Your task to perform on an android device: check data usage Image 0: 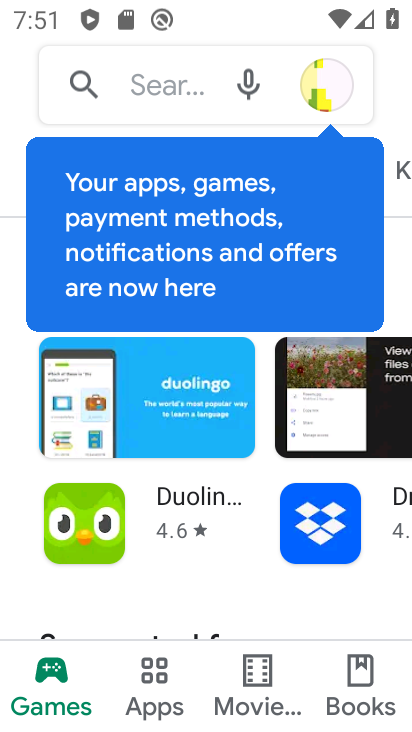
Step 0: press home button
Your task to perform on an android device: check data usage Image 1: 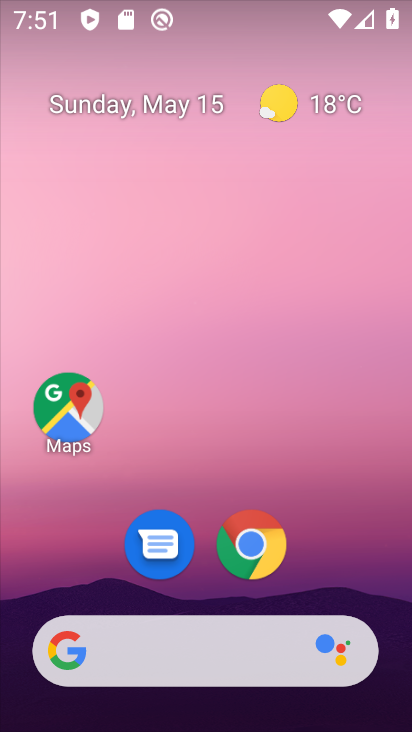
Step 1: drag from (314, 462) to (303, 106)
Your task to perform on an android device: check data usage Image 2: 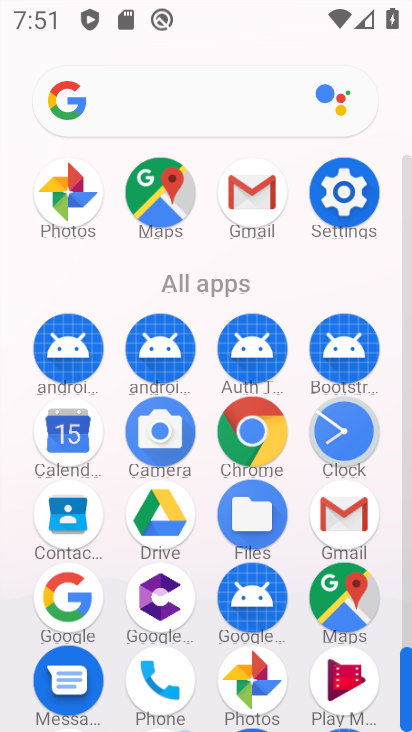
Step 2: click (376, 177)
Your task to perform on an android device: check data usage Image 3: 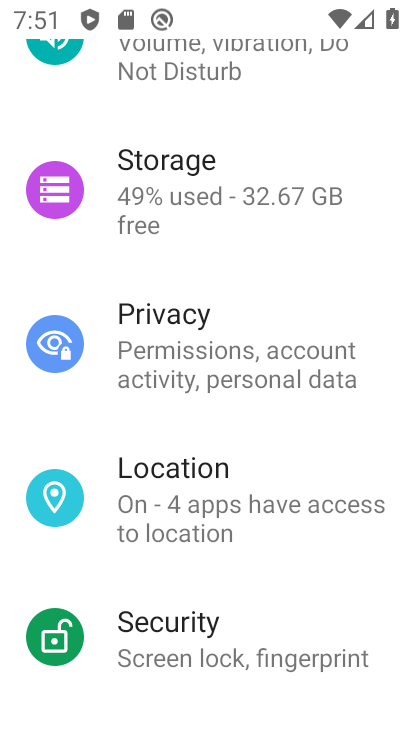
Step 3: drag from (280, 380) to (254, 564)
Your task to perform on an android device: check data usage Image 4: 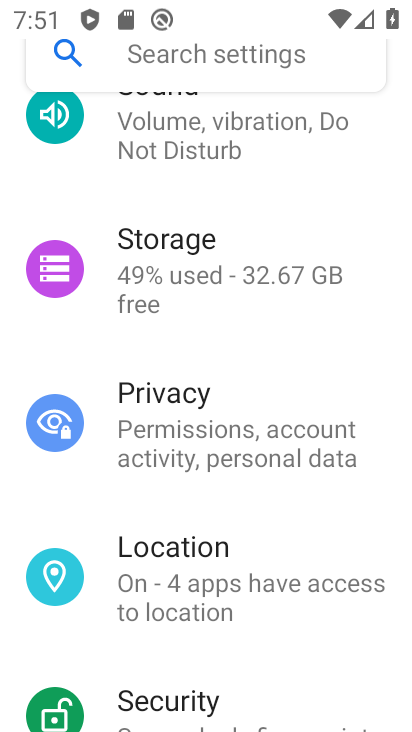
Step 4: drag from (280, 259) to (270, 588)
Your task to perform on an android device: check data usage Image 5: 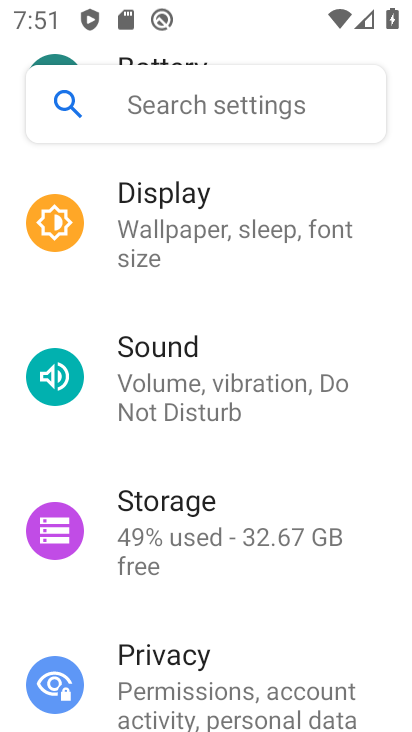
Step 5: drag from (271, 150) to (266, 615)
Your task to perform on an android device: check data usage Image 6: 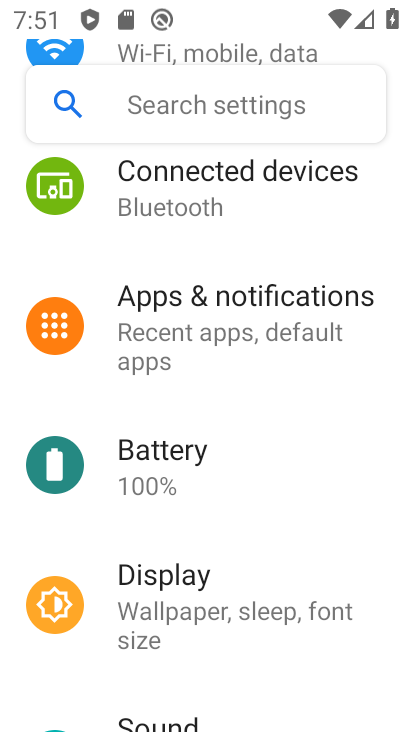
Step 6: drag from (293, 280) to (305, 596)
Your task to perform on an android device: check data usage Image 7: 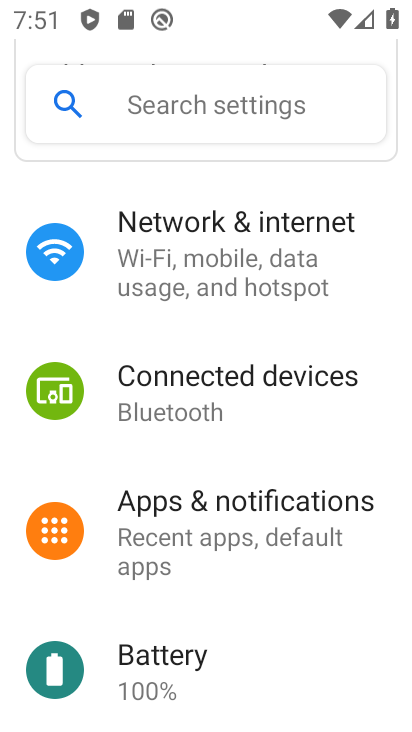
Step 7: click (272, 272)
Your task to perform on an android device: check data usage Image 8: 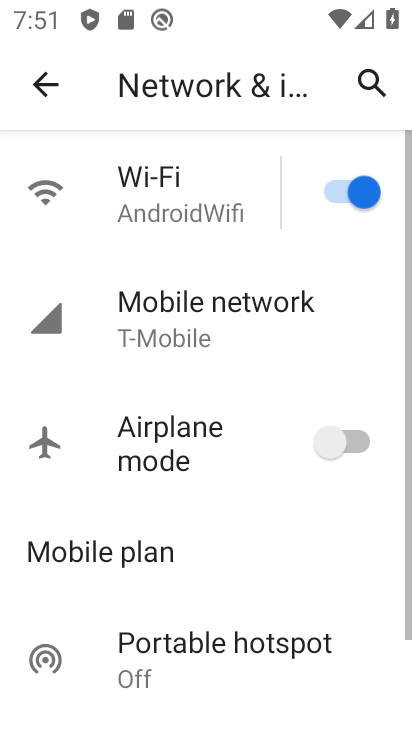
Step 8: click (249, 315)
Your task to perform on an android device: check data usage Image 9: 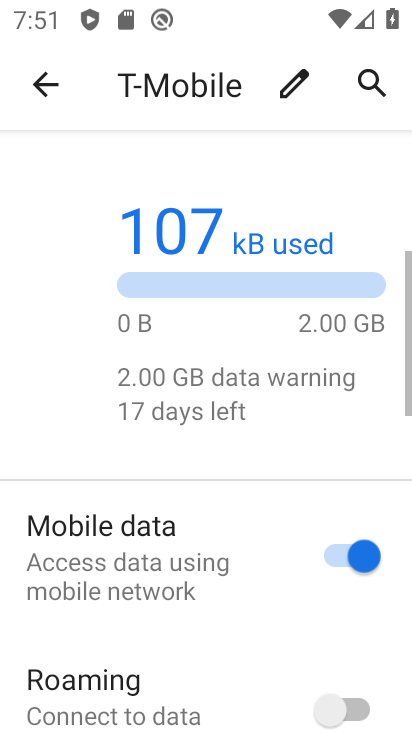
Step 9: drag from (218, 533) to (242, 144)
Your task to perform on an android device: check data usage Image 10: 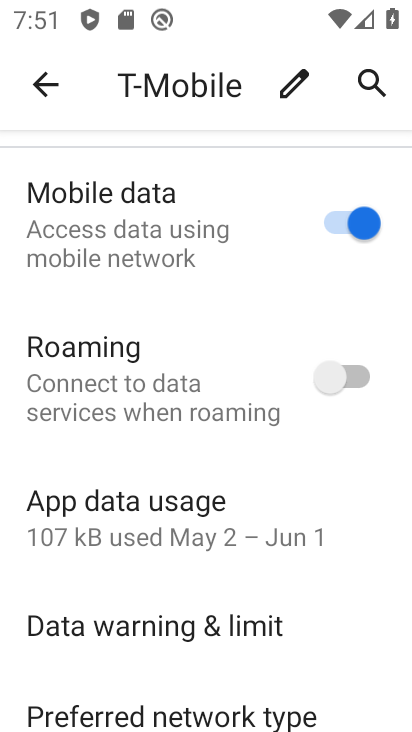
Step 10: click (221, 536)
Your task to perform on an android device: check data usage Image 11: 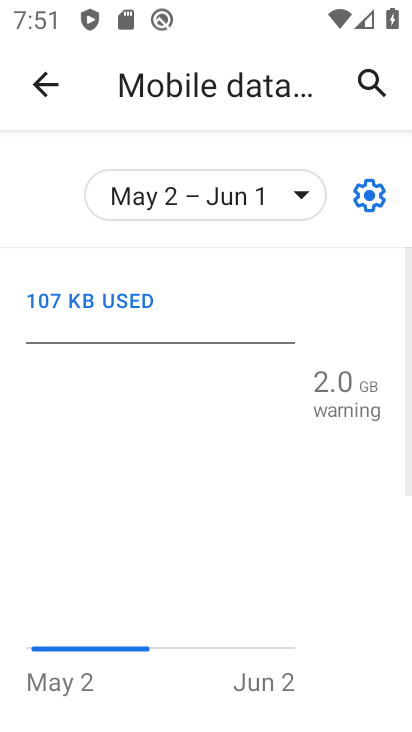
Step 11: task complete